Your task to perform on an android device: toggle location history Image 0: 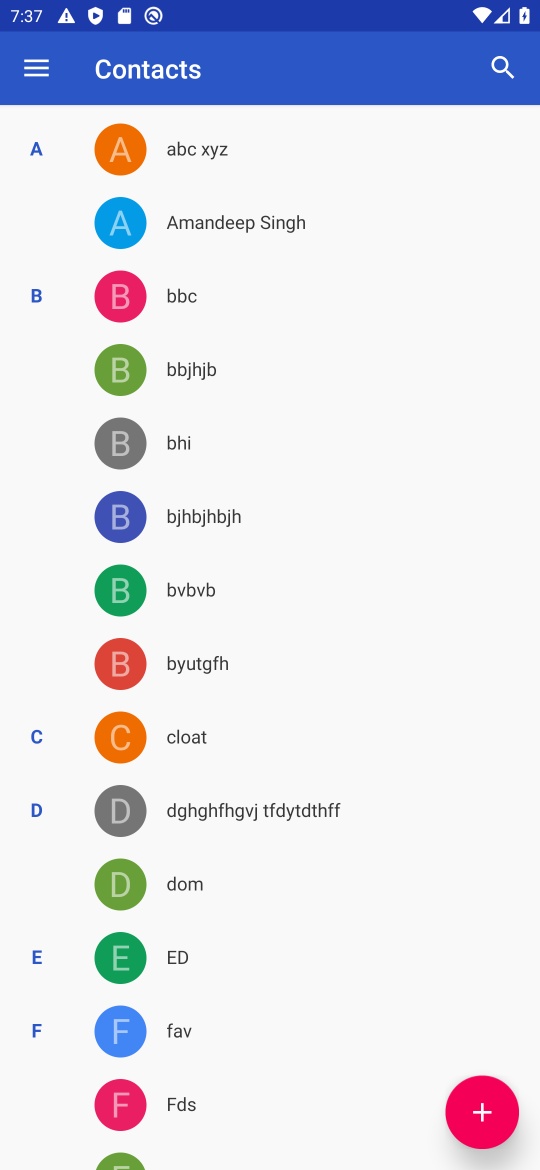
Step 0: press home button
Your task to perform on an android device: toggle location history Image 1: 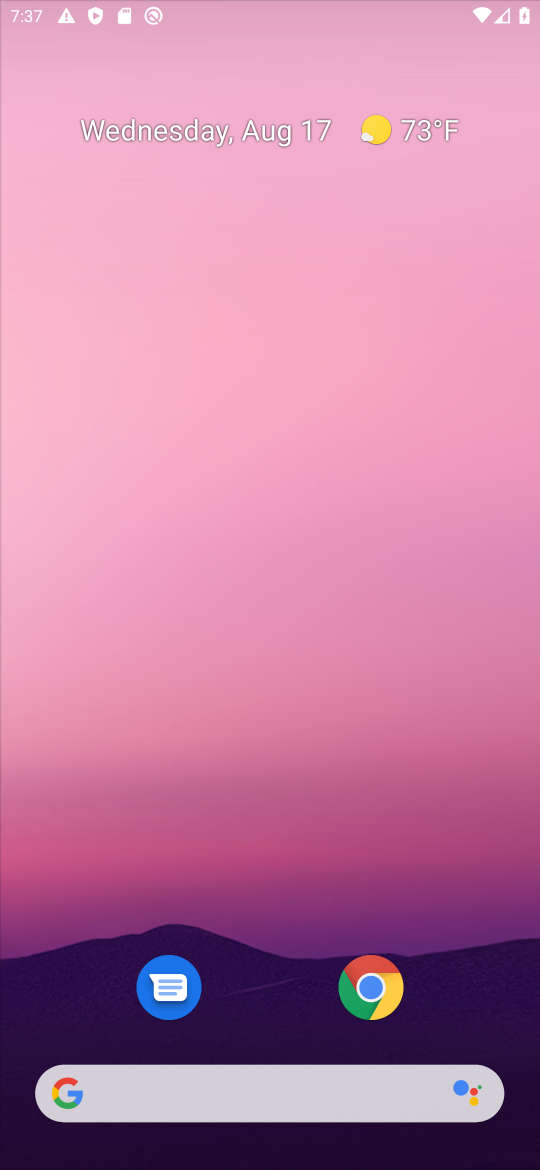
Step 1: drag from (482, 976) to (231, 0)
Your task to perform on an android device: toggle location history Image 2: 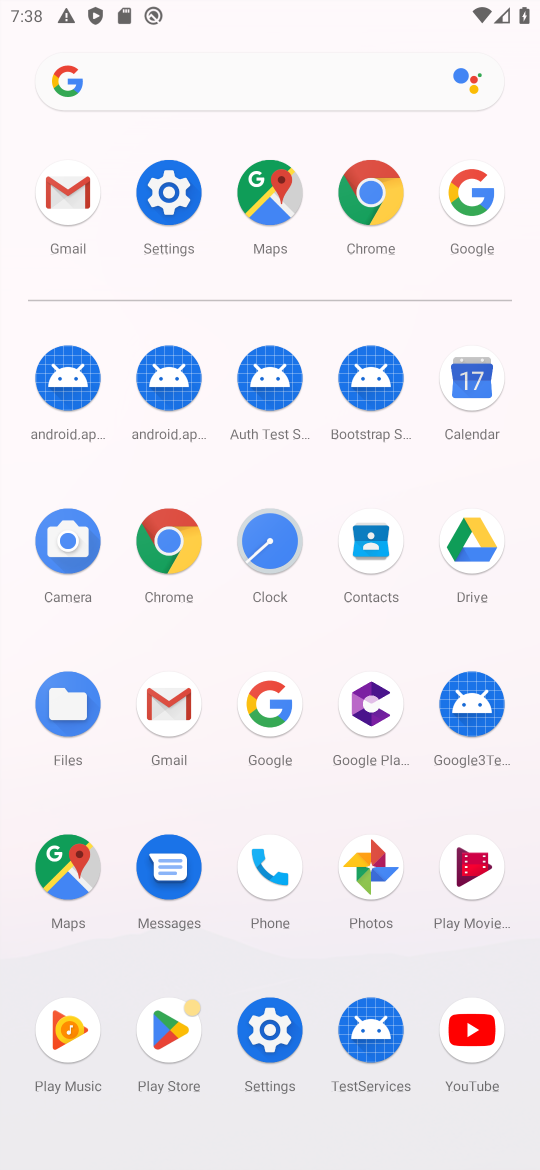
Step 2: click (277, 1027)
Your task to perform on an android device: toggle location history Image 3: 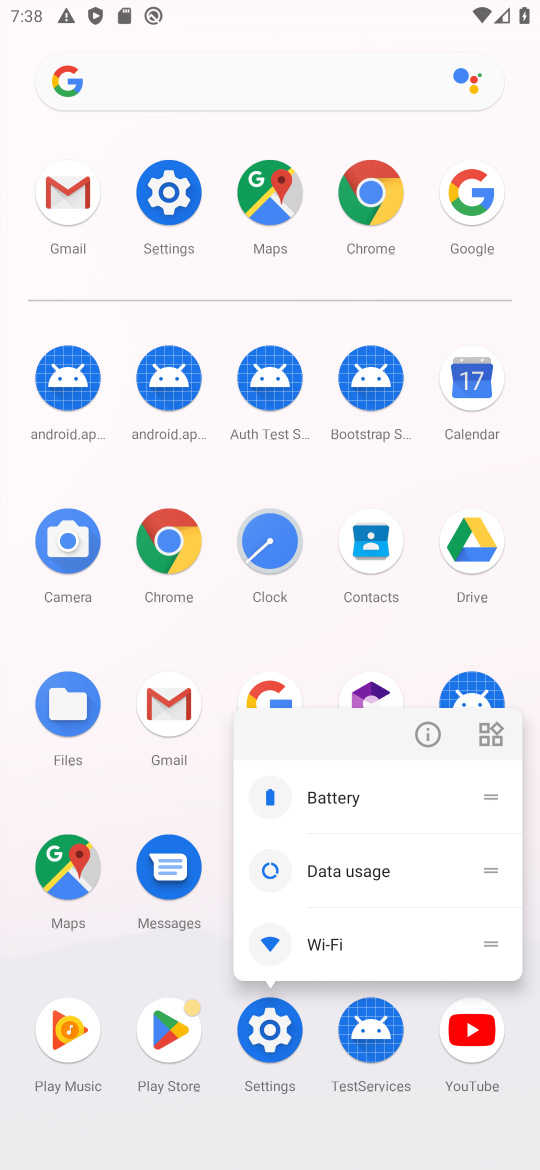
Step 3: click (277, 1025)
Your task to perform on an android device: toggle location history Image 4: 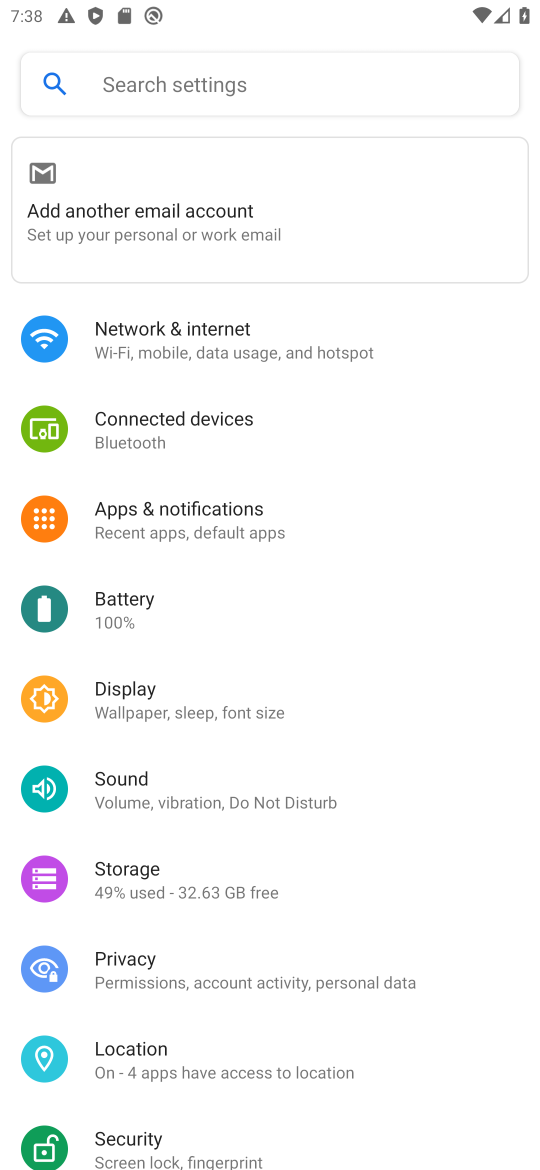
Step 4: click (156, 1069)
Your task to perform on an android device: toggle location history Image 5: 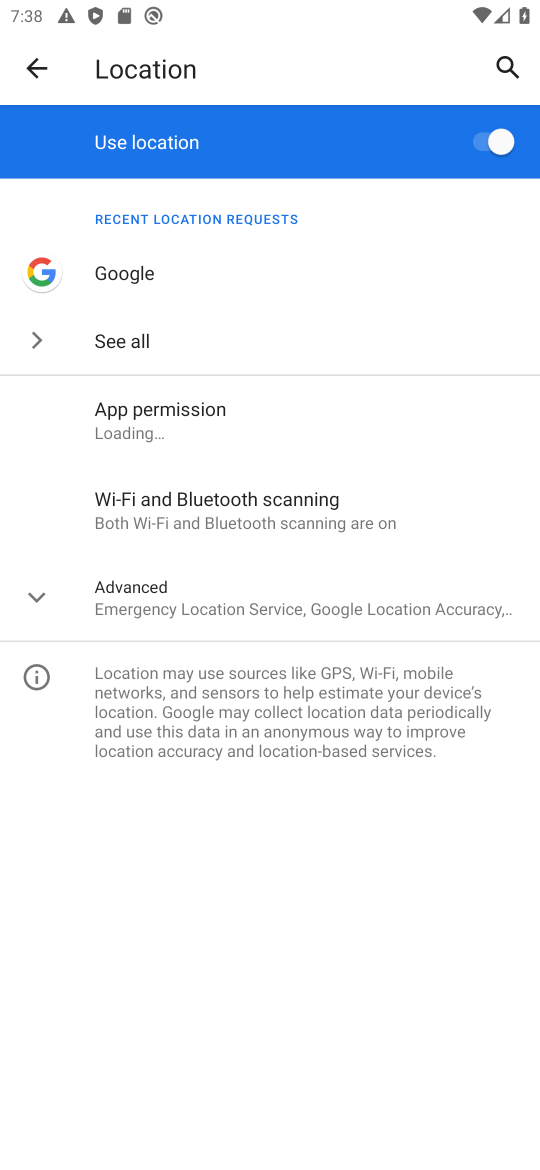
Step 5: click (141, 595)
Your task to perform on an android device: toggle location history Image 6: 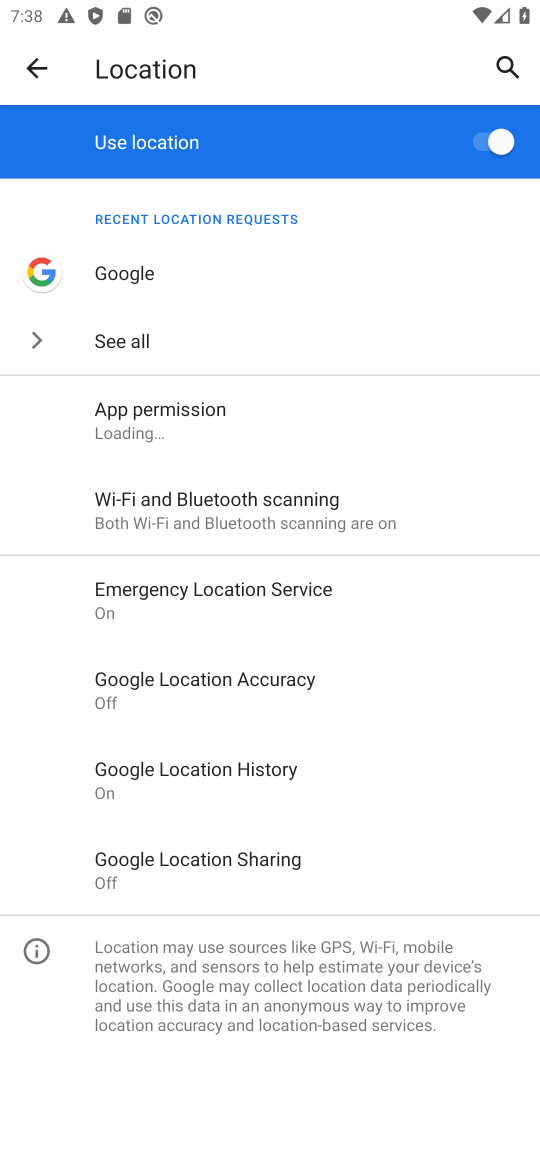
Step 6: click (185, 776)
Your task to perform on an android device: toggle location history Image 7: 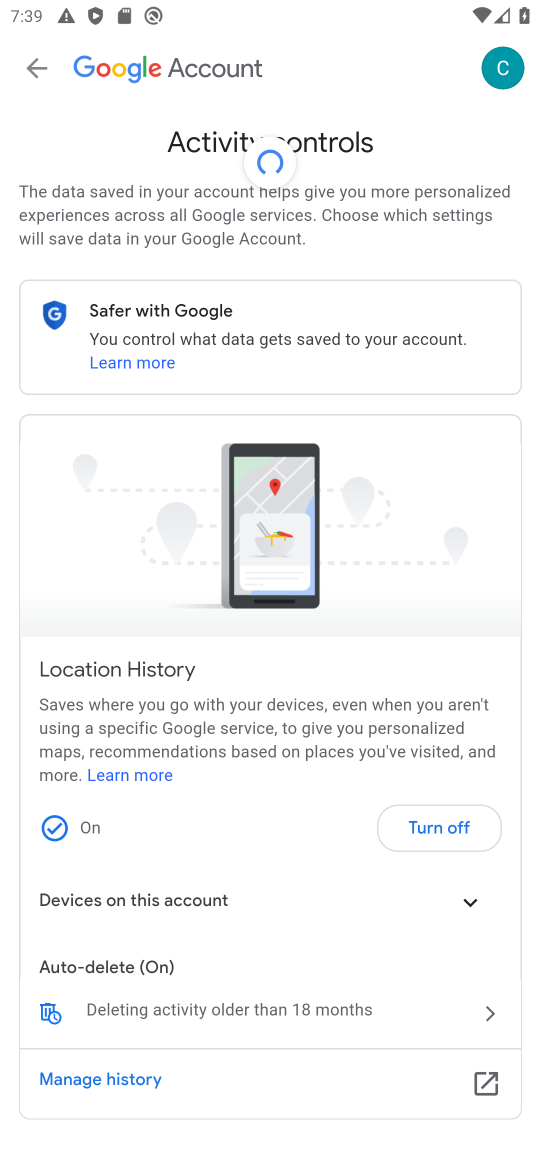
Step 7: click (418, 825)
Your task to perform on an android device: toggle location history Image 8: 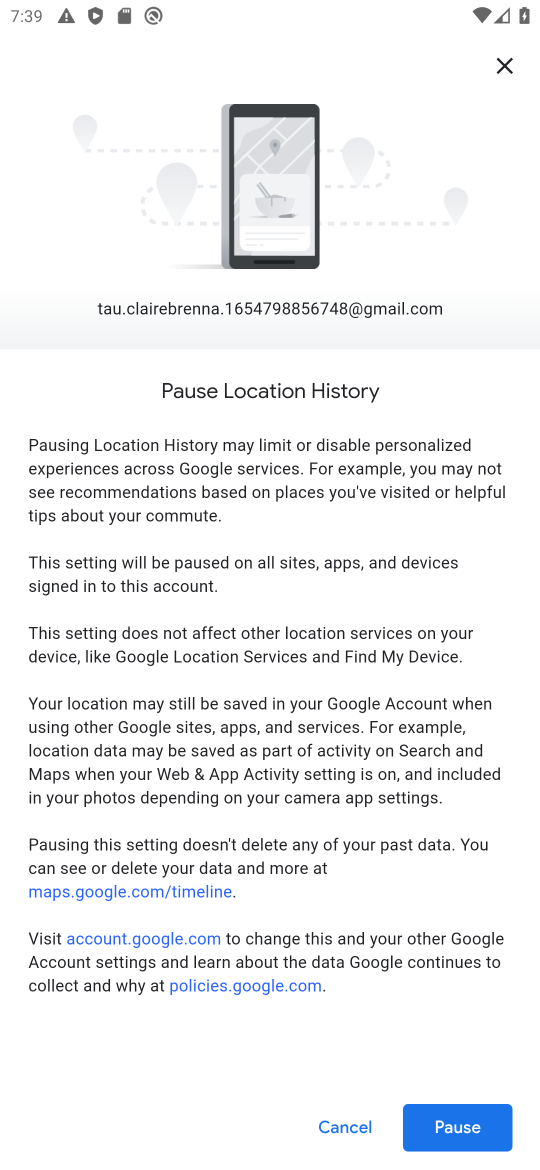
Step 8: click (480, 1143)
Your task to perform on an android device: toggle location history Image 9: 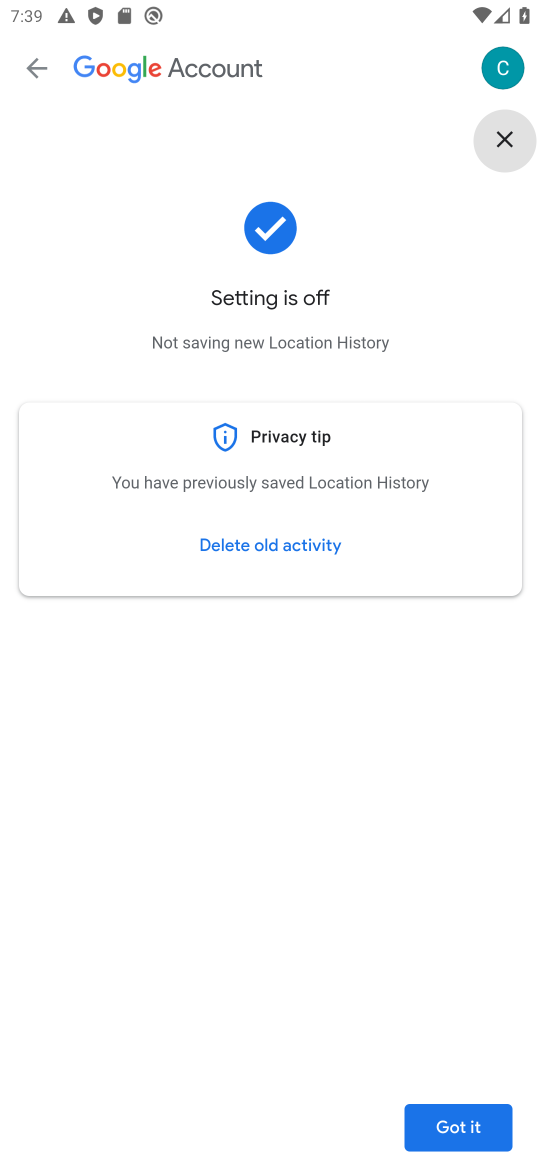
Step 9: task complete